Your task to perform on an android device: What's on my calendar today? Image 0: 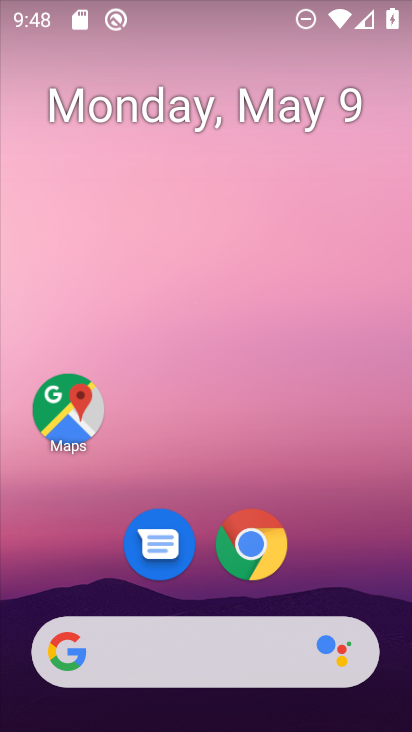
Step 0: drag from (318, 563) to (182, 176)
Your task to perform on an android device: What's on my calendar today? Image 1: 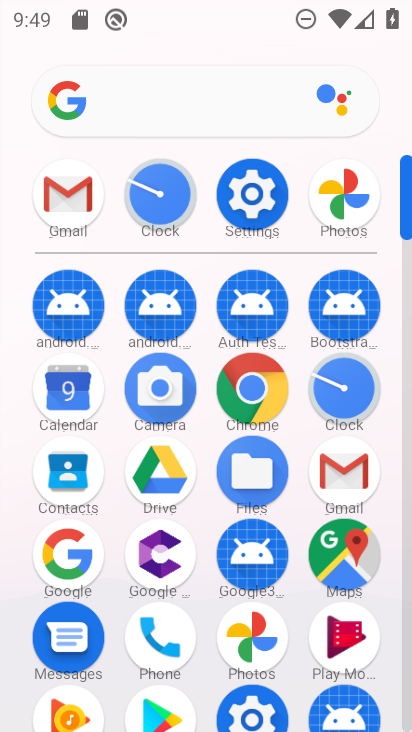
Step 1: click (58, 381)
Your task to perform on an android device: What's on my calendar today? Image 2: 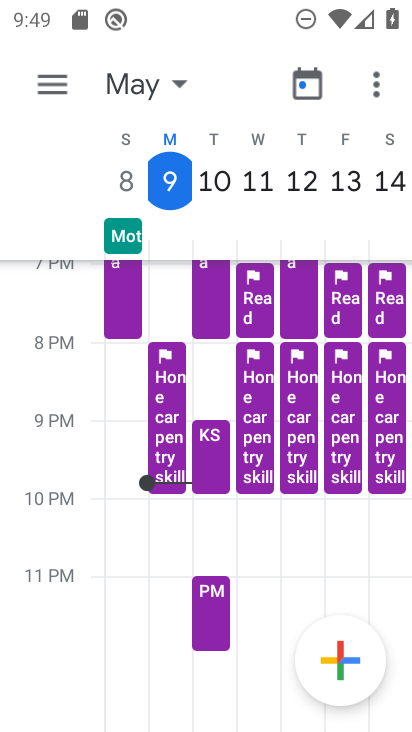
Step 2: click (57, 84)
Your task to perform on an android device: What's on my calendar today? Image 3: 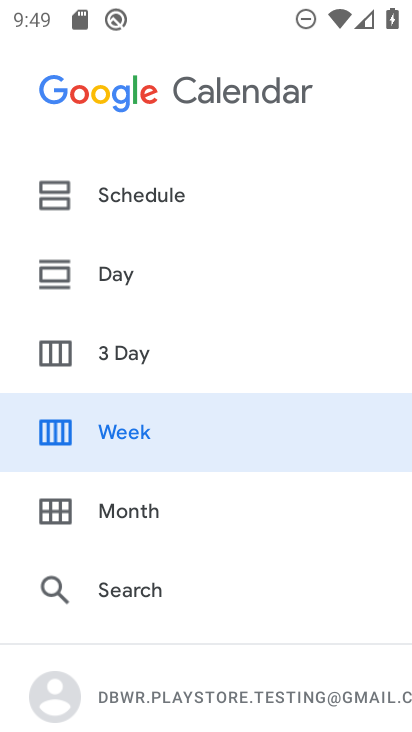
Step 3: click (109, 266)
Your task to perform on an android device: What's on my calendar today? Image 4: 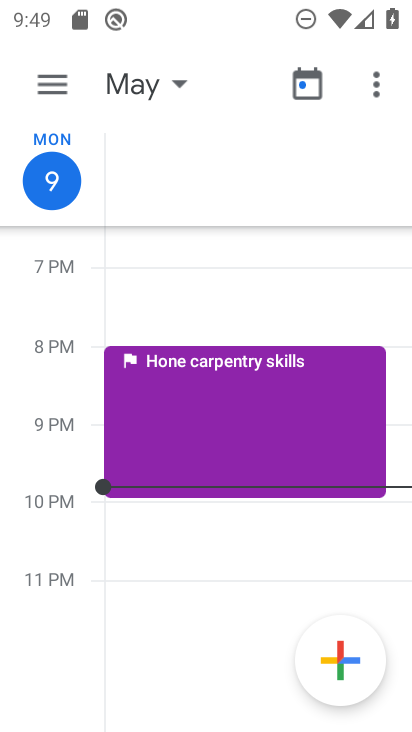
Step 4: task complete